Your task to perform on an android device: Set the phone to "Do not disturb". Image 0: 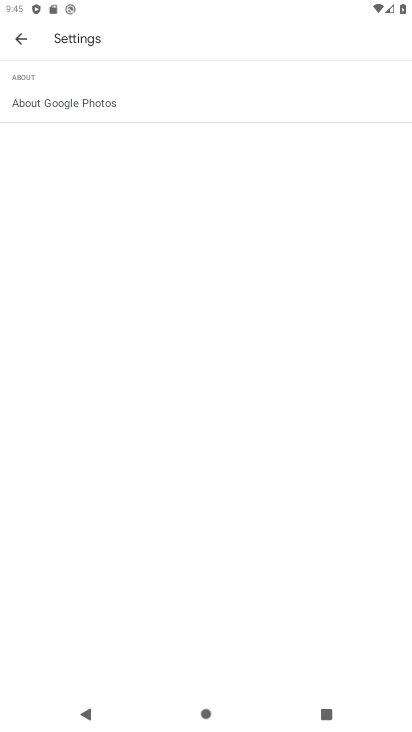
Step 0: press home button
Your task to perform on an android device: Set the phone to "Do not disturb". Image 1: 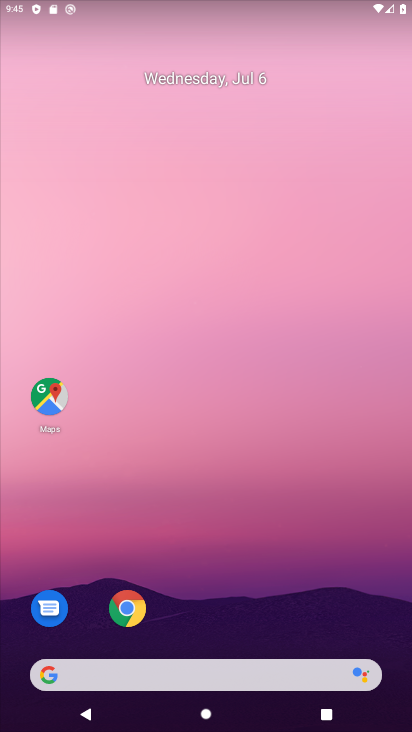
Step 1: drag from (136, 674) to (188, 302)
Your task to perform on an android device: Set the phone to "Do not disturb". Image 2: 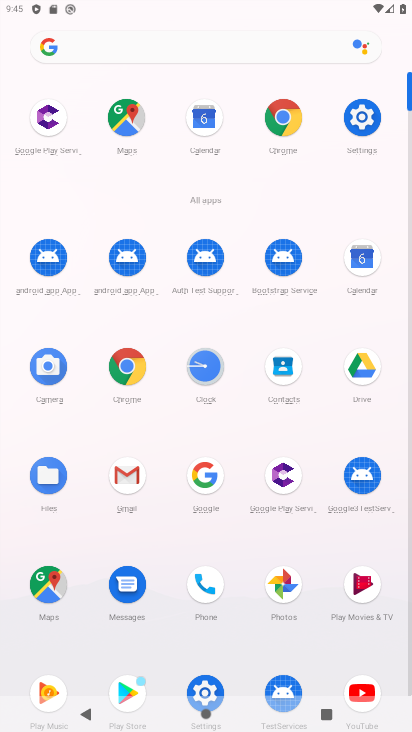
Step 2: click (364, 114)
Your task to perform on an android device: Set the phone to "Do not disturb". Image 3: 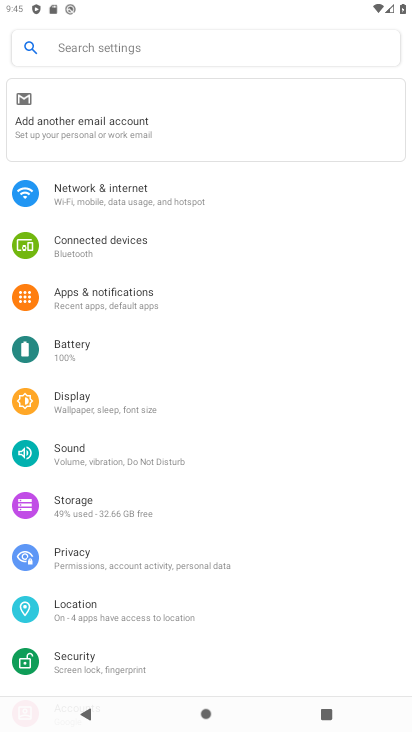
Step 3: click (112, 462)
Your task to perform on an android device: Set the phone to "Do not disturb". Image 4: 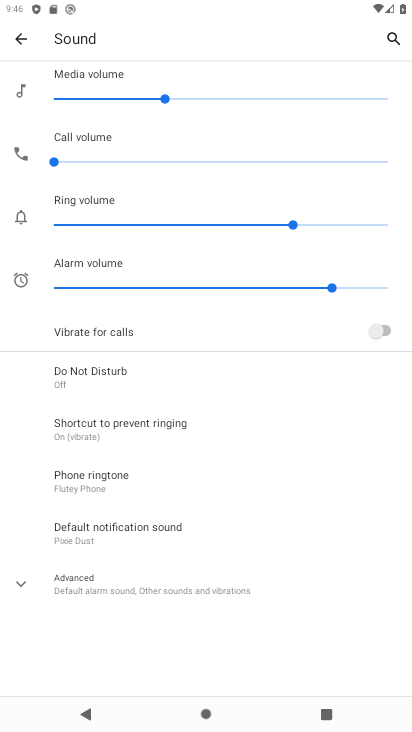
Step 4: click (84, 374)
Your task to perform on an android device: Set the phone to "Do not disturb". Image 5: 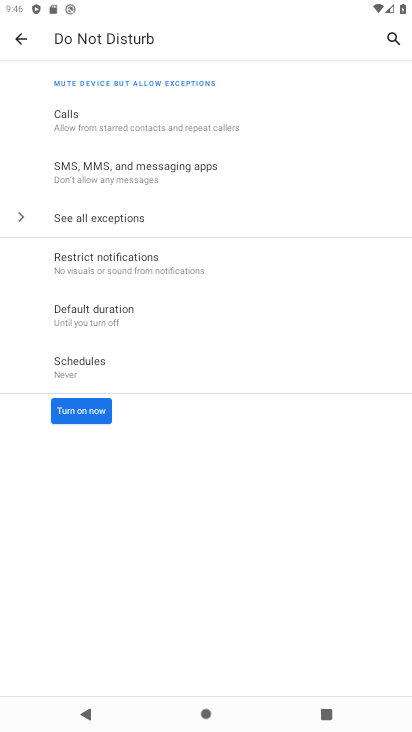
Step 5: click (73, 410)
Your task to perform on an android device: Set the phone to "Do not disturb". Image 6: 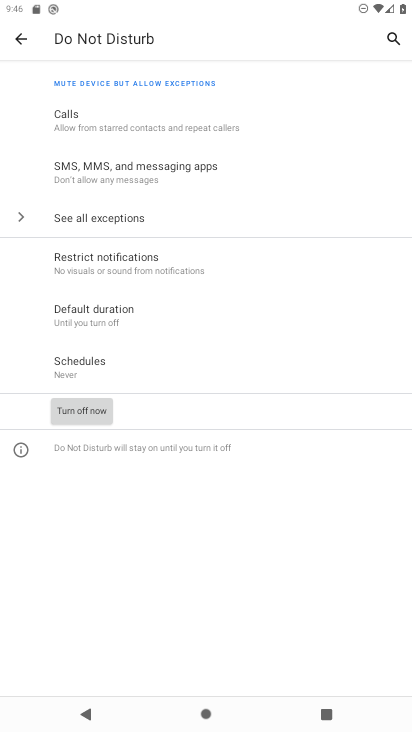
Step 6: task complete